Your task to perform on an android device: clear all cookies in the chrome app Image 0: 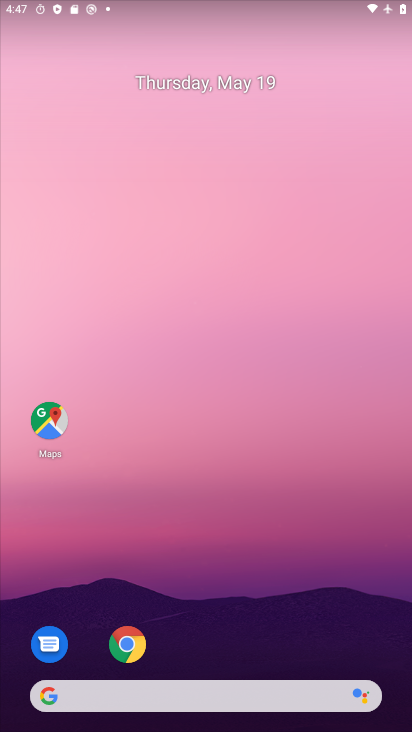
Step 0: click (134, 640)
Your task to perform on an android device: clear all cookies in the chrome app Image 1: 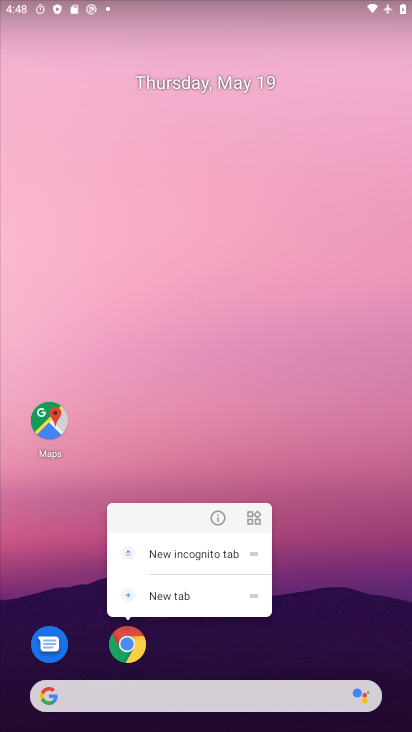
Step 1: click (93, 630)
Your task to perform on an android device: clear all cookies in the chrome app Image 2: 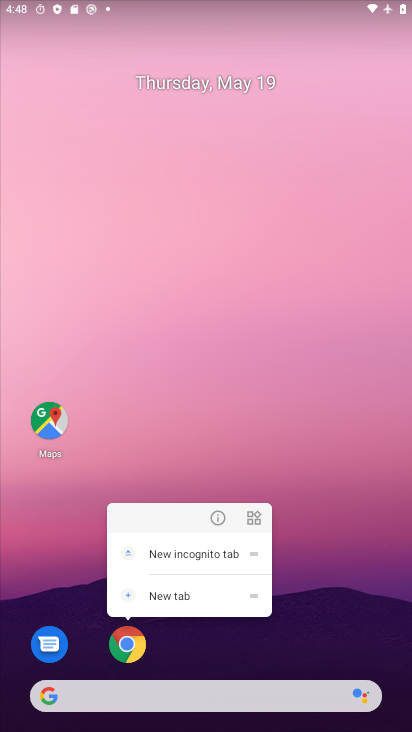
Step 2: click (146, 646)
Your task to perform on an android device: clear all cookies in the chrome app Image 3: 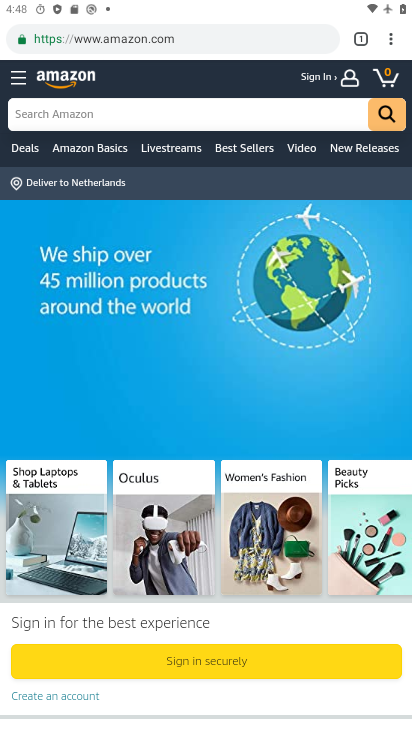
Step 3: click (391, 34)
Your task to perform on an android device: clear all cookies in the chrome app Image 4: 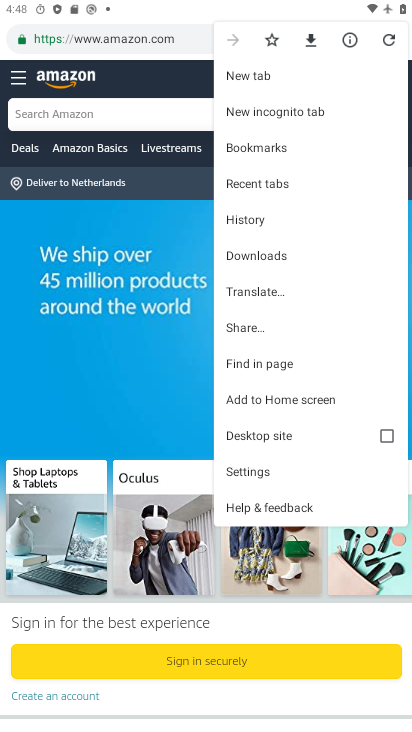
Step 4: click (261, 214)
Your task to perform on an android device: clear all cookies in the chrome app Image 5: 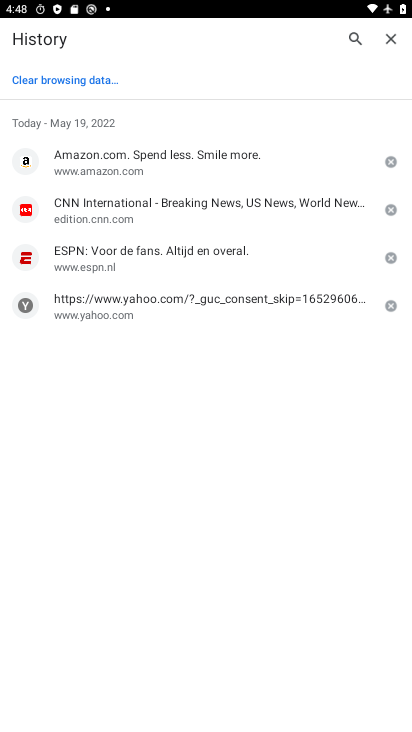
Step 5: click (58, 83)
Your task to perform on an android device: clear all cookies in the chrome app Image 6: 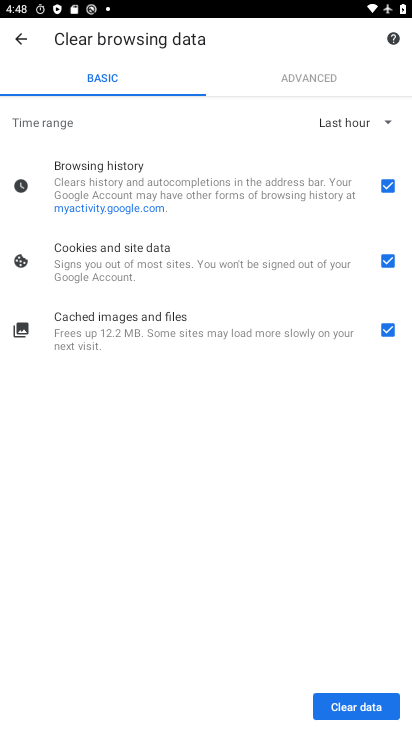
Step 6: click (387, 187)
Your task to perform on an android device: clear all cookies in the chrome app Image 7: 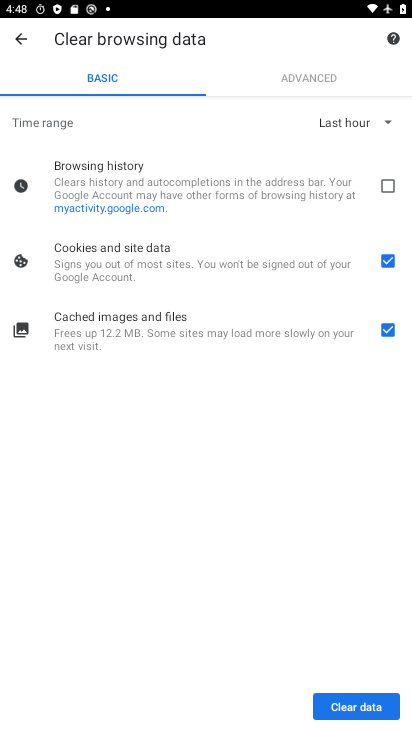
Step 7: click (386, 334)
Your task to perform on an android device: clear all cookies in the chrome app Image 8: 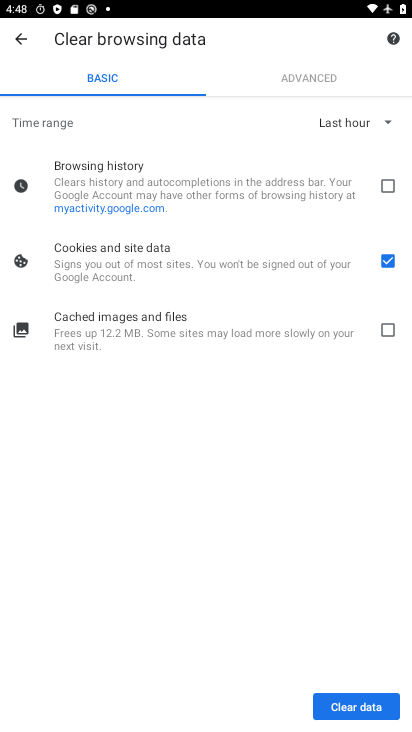
Step 8: click (364, 701)
Your task to perform on an android device: clear all cookies in the chrome app Image 9: 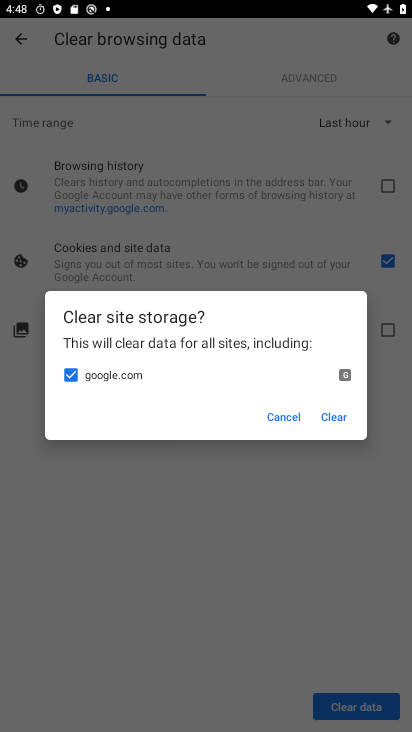
Step 9: click (323, 419)
Your task to perform on an android device: clear all cookies in the chrome app Image 10: 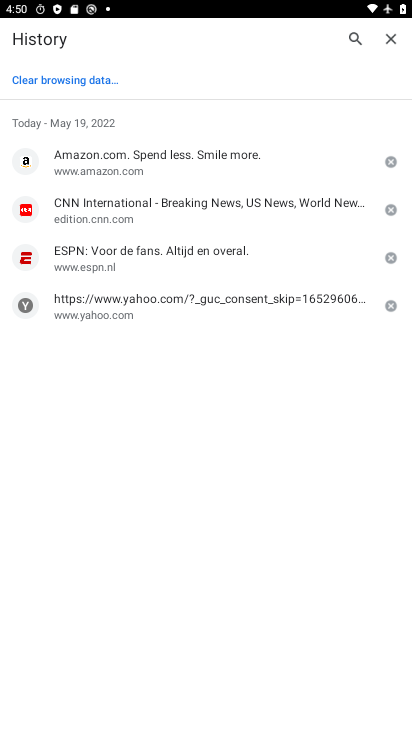
Step 10: task complete